Your task to perform on an android device: Open internet settings Image 0: 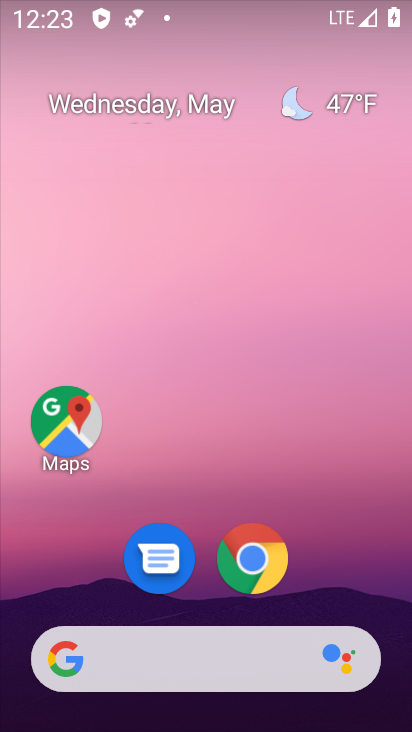
Step 0: drag from (220, 619) to (220, 55)
Your task to perform on an android device: Open internet settings Image 1: 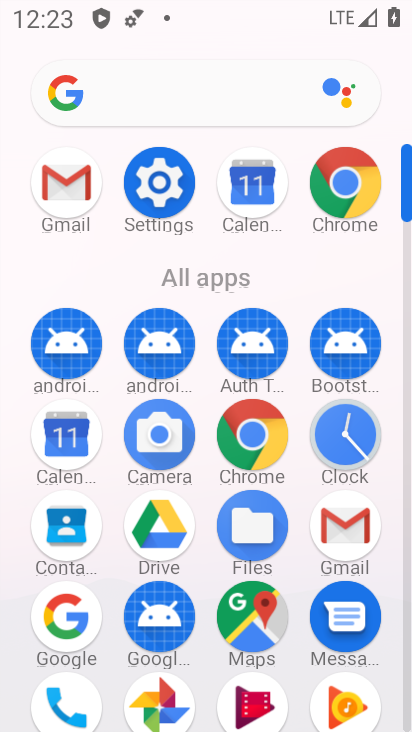
Step 1: click (157, 175)
Your task to perform on an android device: Open internet settings Image 2: 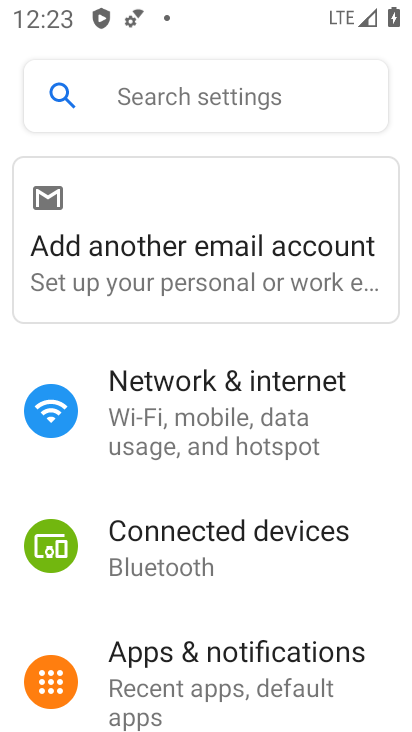
Step 2: drag from (177, 694) to (174, 393)
Your task to perform on an android device: Open internet settings Image 3: 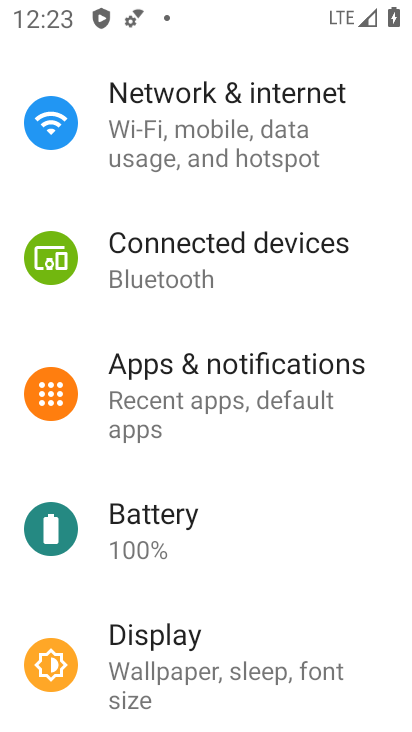
Step 3: drag from (291, 162) to (299, 543)
Your task to perform on an android device: Open internet settings Image 4: 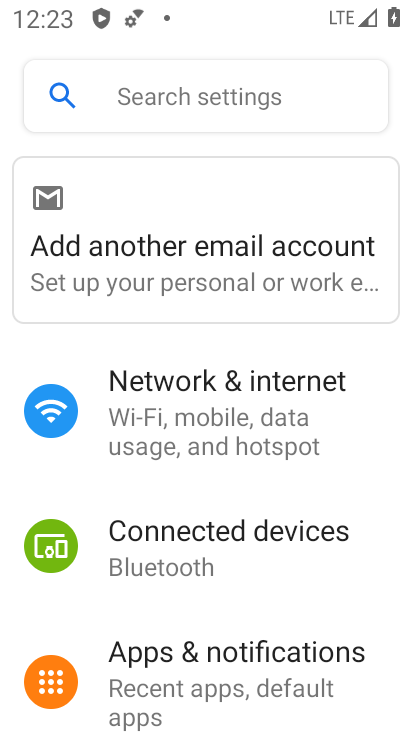
Step 4: click (173, 397)
Your task to perform on an android device: Open internet settings Image 5: 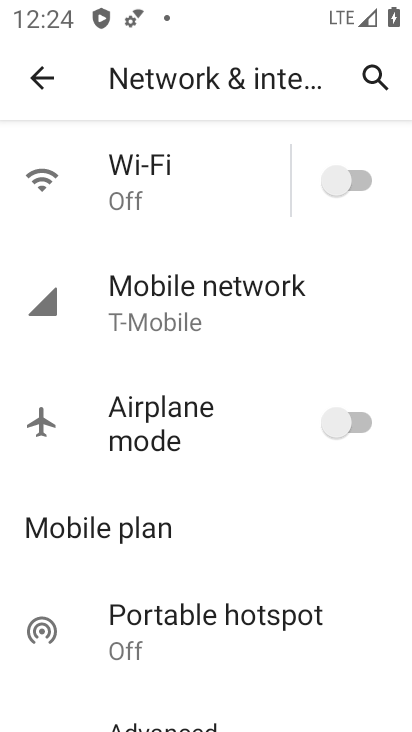
Step 5: click (168, 291)
Your task to perform on an android device: Open internet settings Image 6: 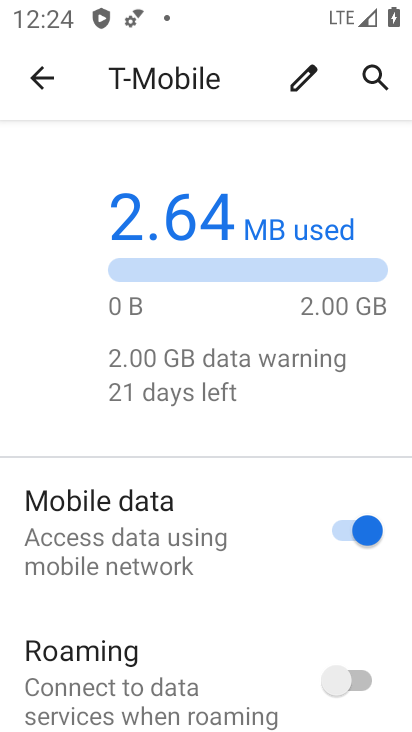
Step 6: task complete